Your task to perform on an android device: check storage Image 0: 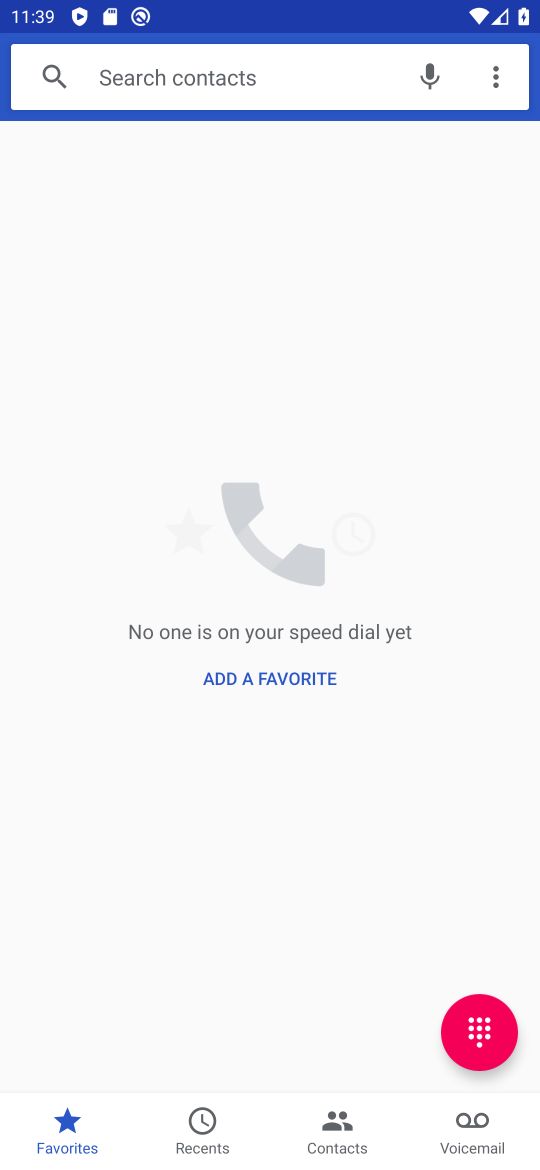
Step 0: press home button
Your task to perform on an android device: check storage Image 1: 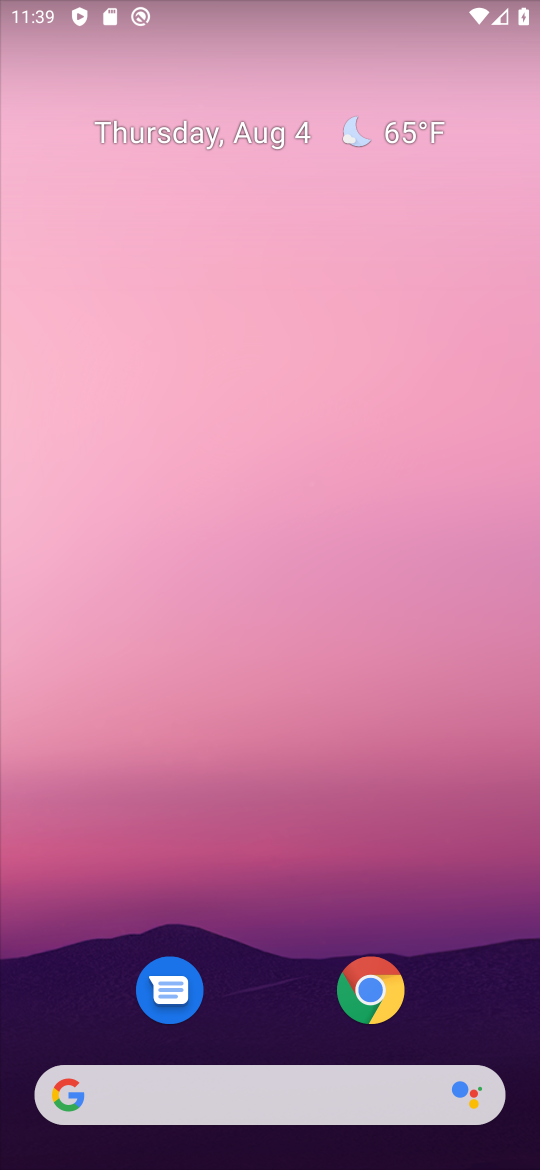
Step 1: drag from (506, 1025) to (231, 342)
Your task to perform on an android device: check storage Image 2: 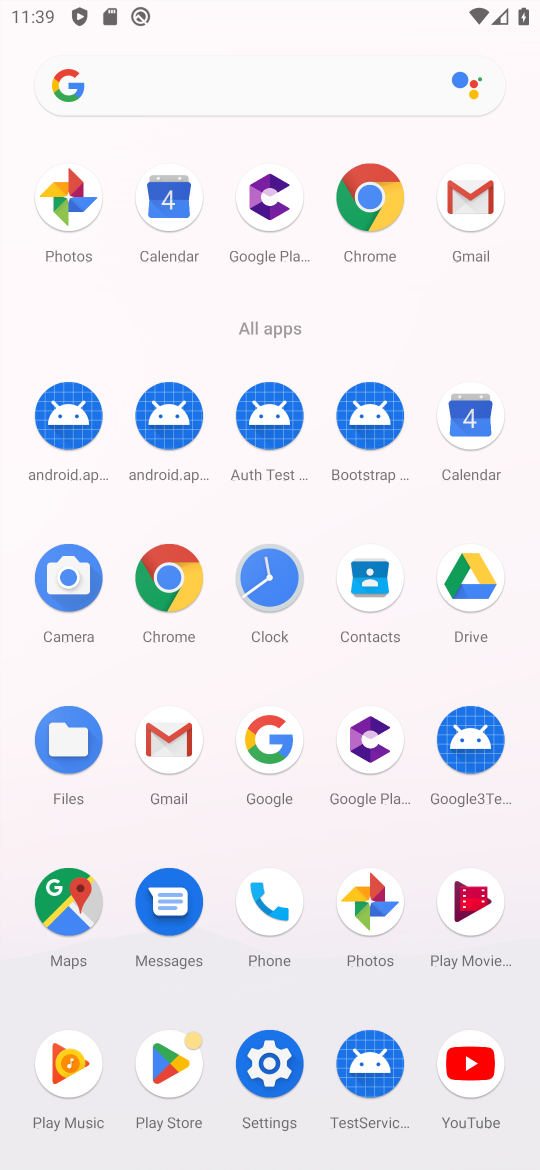
Step 2: click (263, 1057)
Your task to perform on an android device: check storage Image 3: 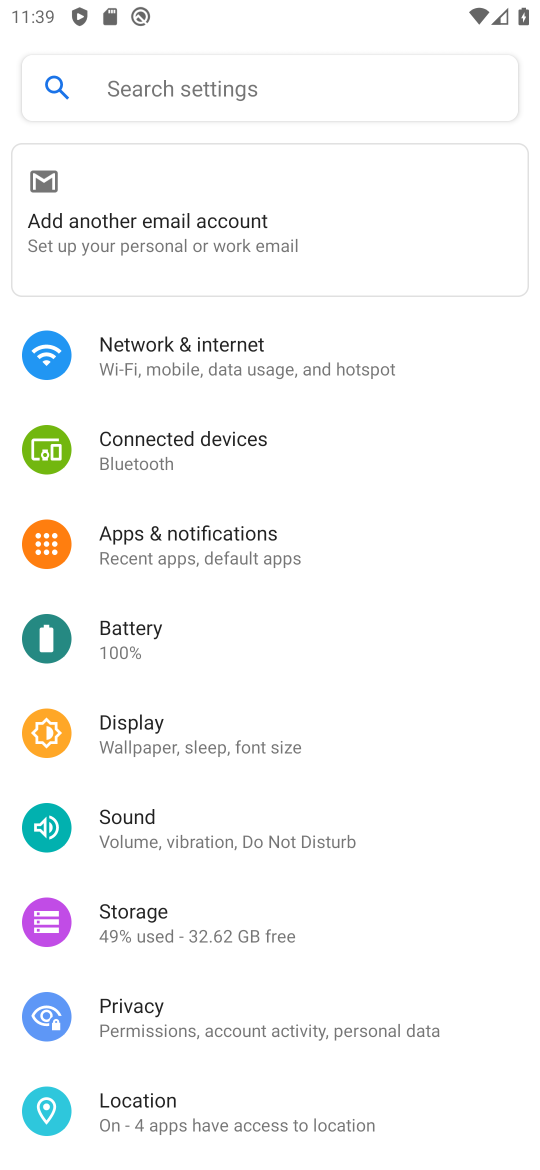
Step 3: click (363, 943)
Your task to perform on an android device: check storage Image 4: 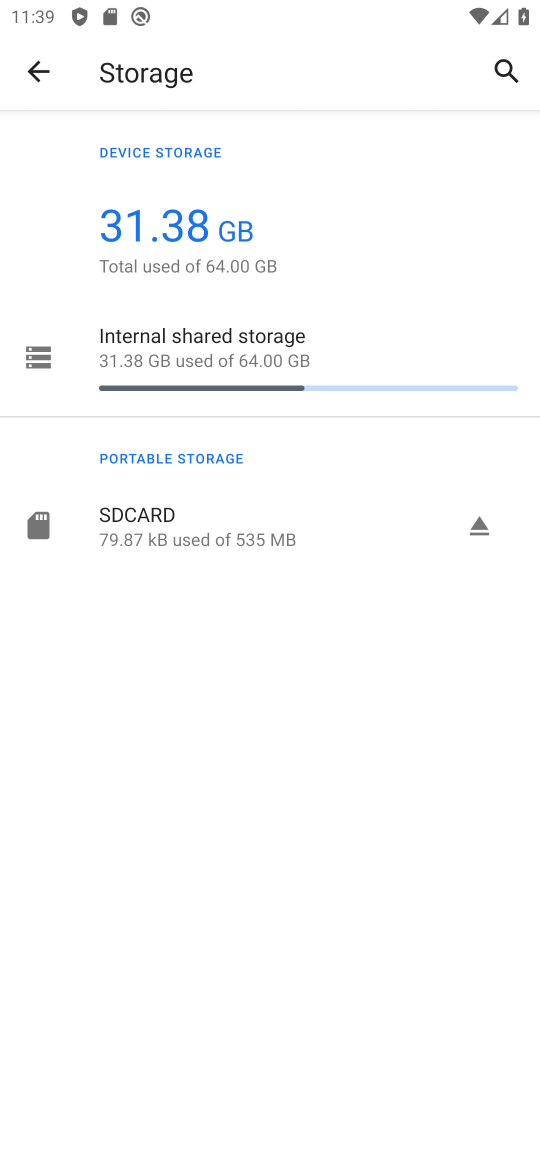
Step 4: task complete